Your task to perform on an android device: show emergency info Image 0: 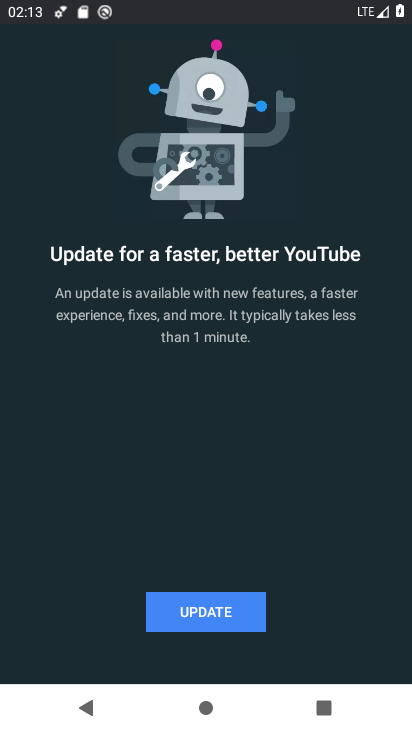
Step 0: press home button
Your task to perform on an android device: show emergency info Image 1: 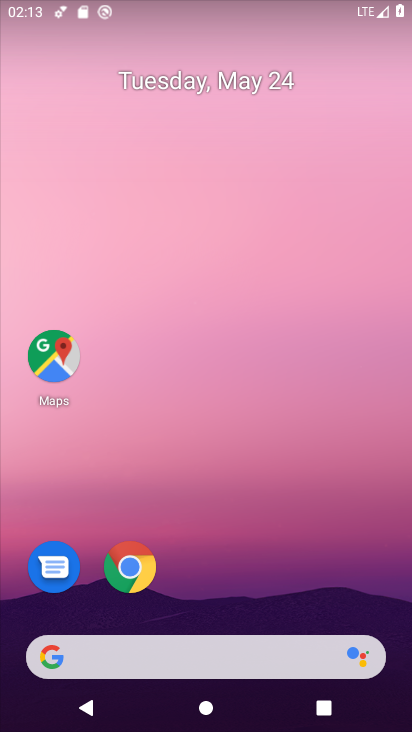
Step 1: drag from (174, 620) to (289, 159)
Your task to perform on an android device: show emergency info Image 2: 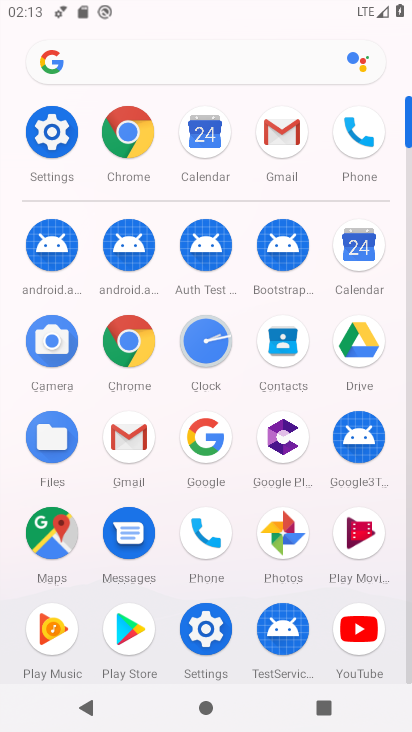
Step 2: click (210, 615)
Your task to perform on an android device: show emergency info Image 3: 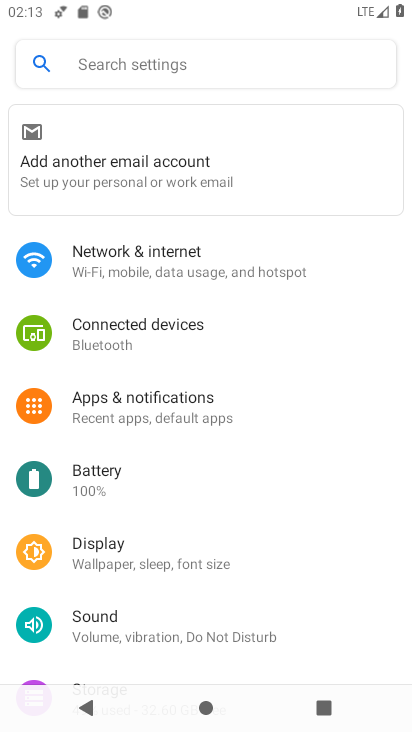
Step 3: drag from (154, 576) to (282, 189)
Your task to perform on an android device: show emergency info Image 4: 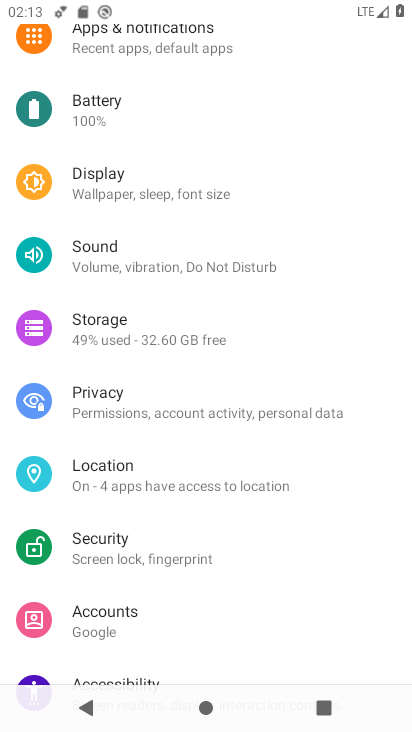
Step 4: drag from (132, 593) to (285, 138)
Your task to perform on an android device: show emergency info Image 5: 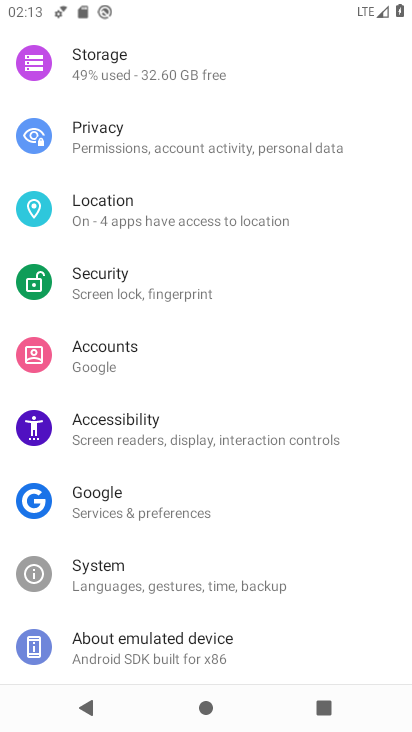
Step 5: drag from (209, 584) to (263, 279)
Your task to perform on an android device: show emergency info Image 6: 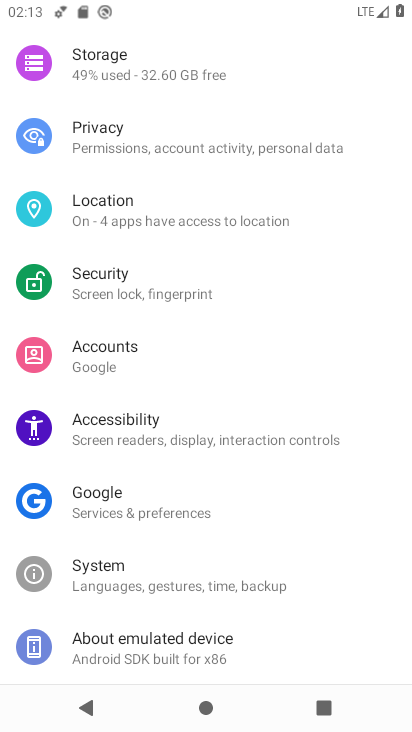
Step 6: click (144, 658)
Your task to perform on an android device: show emergency info Image 7: 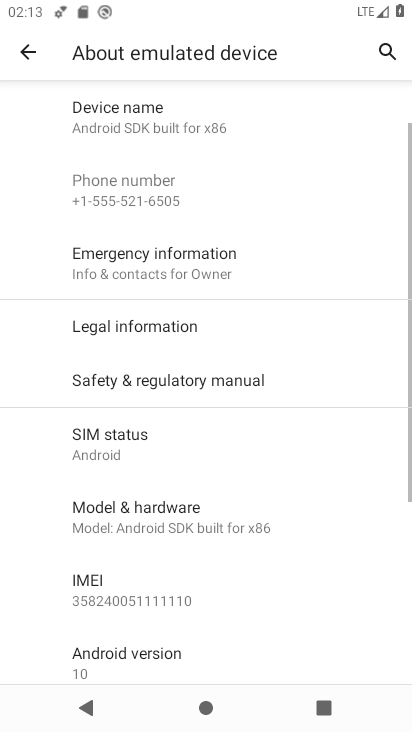
Step 7: click (168, 268)
Your task to perform on an android device: show emergency info Image 8: 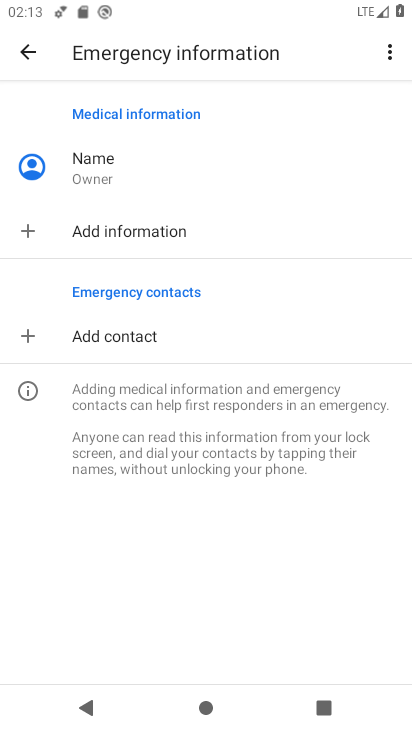
Step 8: task complete